Your task to perform on an android device: add a label to a message in the gmail app Image 0: 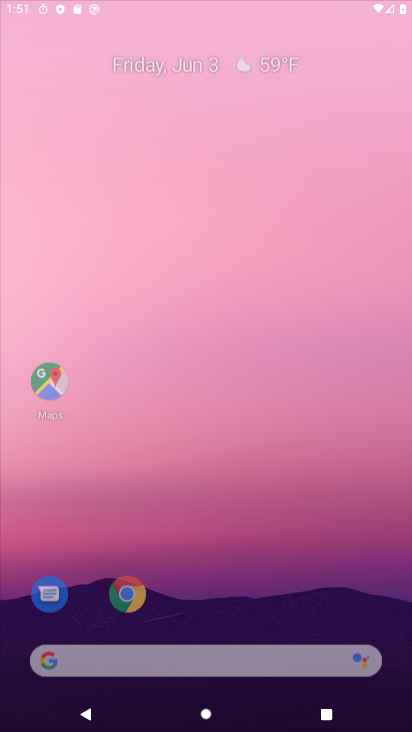
Step 0: click (142, 604)
Your task to perform on an android device: add a label to a message in the gmail app Image 1: 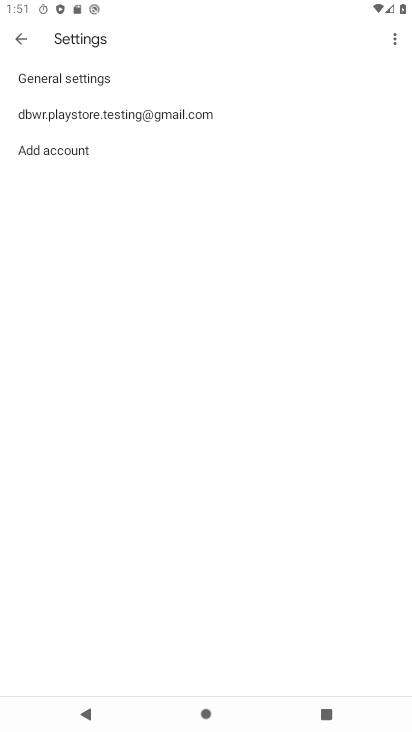
Step 1: click (22, 43)
Your task to perform on an android device: add a label to a message in the gmail app Image 2: 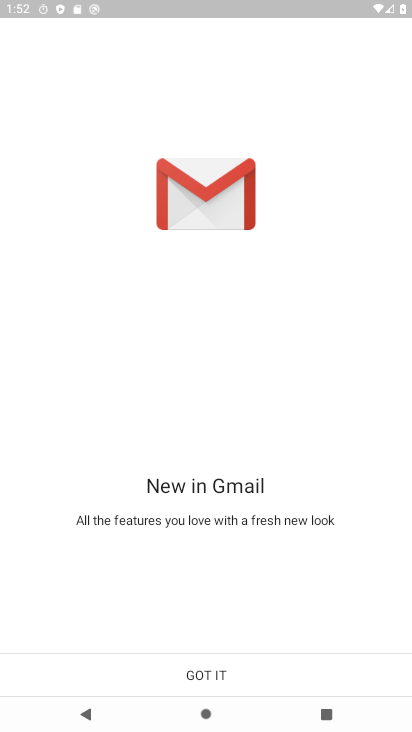
Step 2: click (257, 670)
Your task to perform on an android device: add a label to a message in the gmail app Image 3: 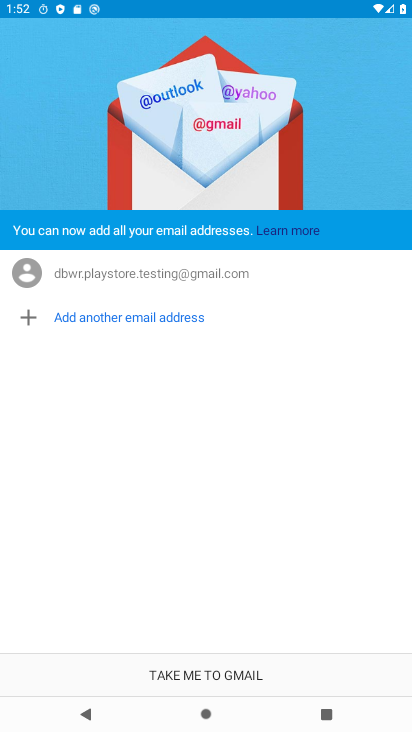
Step 3: click (257, 670)
Your task to perform on an android device: add a label to a message in the gmail app Image 4: 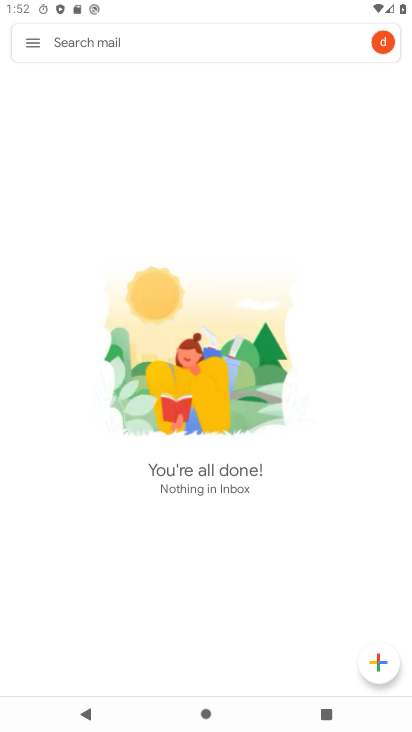
Step 4: click (26, 47)
Your task to perform on an android device: add a label to a message in the gmail app Image 5: 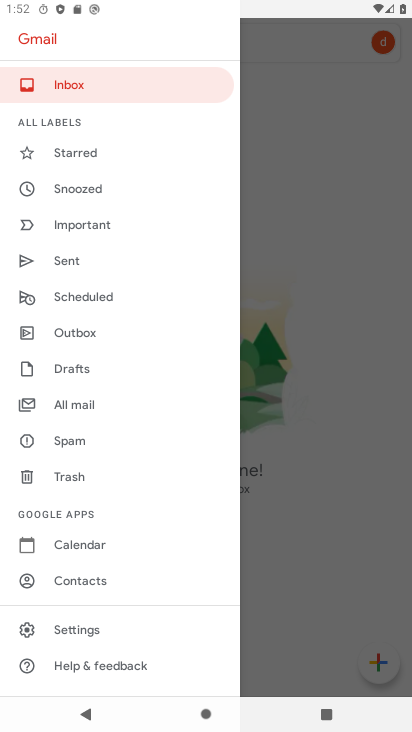
Step 5: click (76, 404)
Your task to perform on an android device: add a label to a message in the gmail app Image 6: 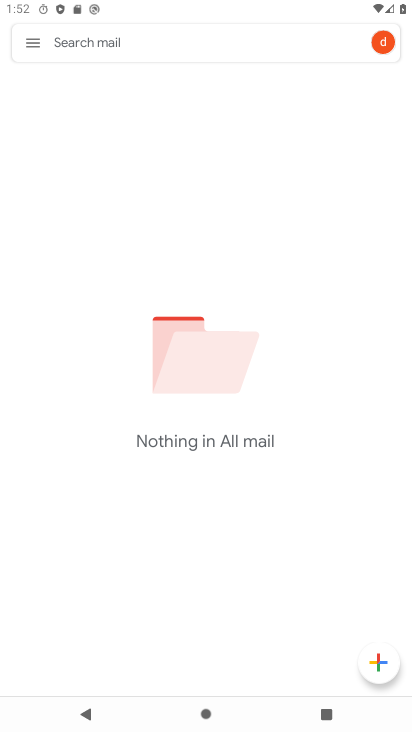
Step 6: task complete